Your task to perform on an android device: Go to settings Image 0: 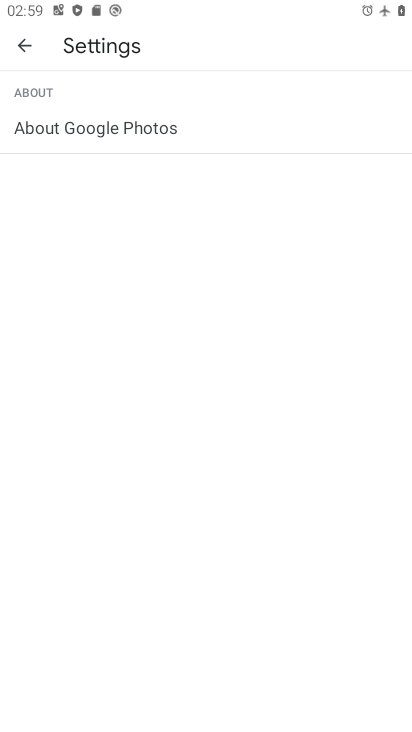
Step 0: press home button
Your task to perform on an android device: Go to settings Image 1: 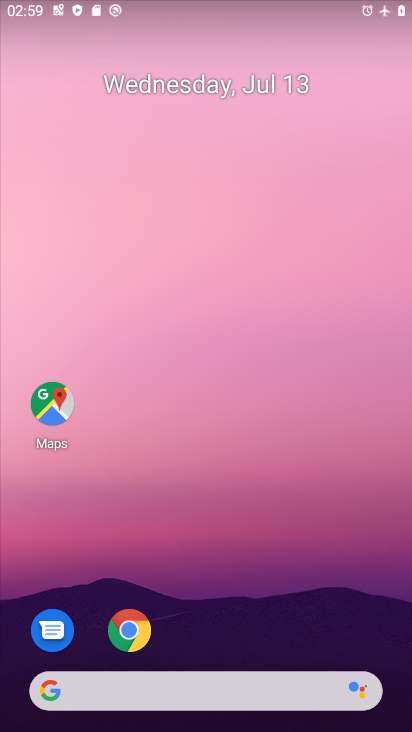
Step 1: drag from (223, 640) to (213, 207)
Your task to perform on an android device: Go to settings Image 2: 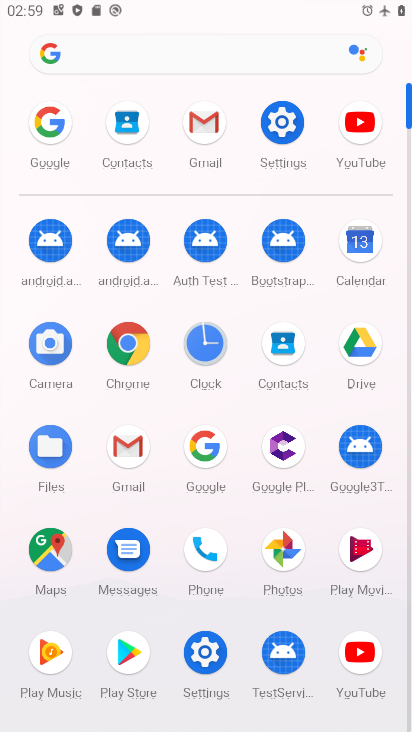
Step 2: click (267, 136)
Your task to perform on an android device: Go to settings Image 3: 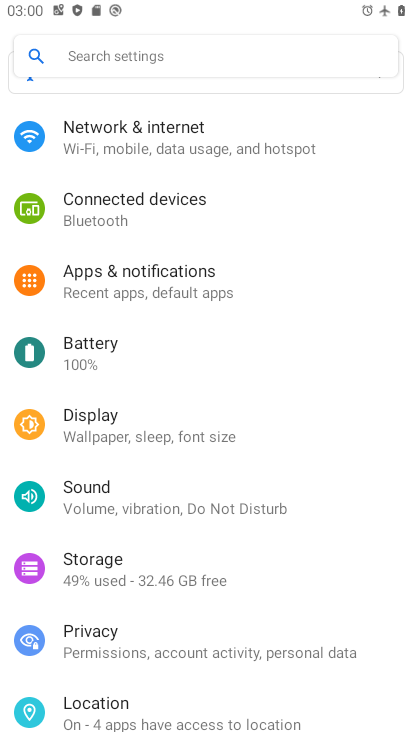
Step 3: task complete